Your task to perform on an android device: turn off improve location accuracy Image 0: 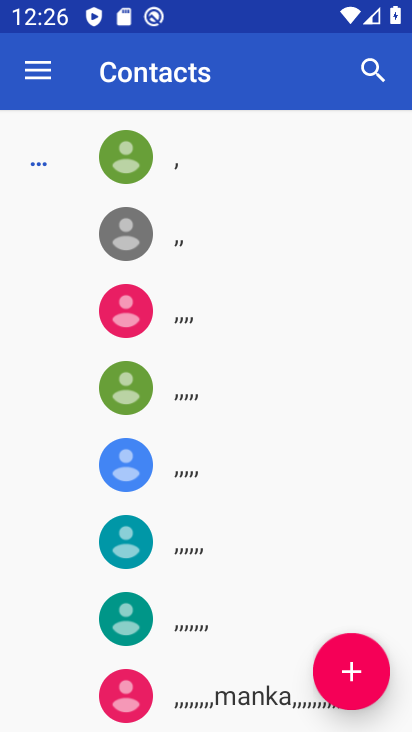
Step 0: press home button
Your task to perform on an android device: turn off improve location accuracy Image 1: 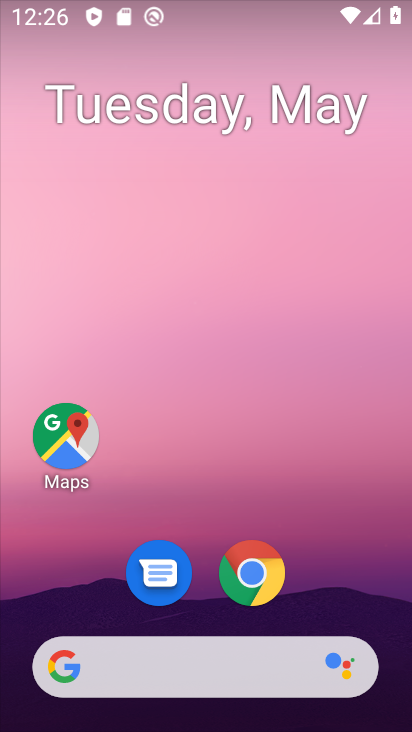
Step 1: drag from (325, 565) to (395, 152)
Your task to perform on an android device: turn off improve location accuracy Image 2: 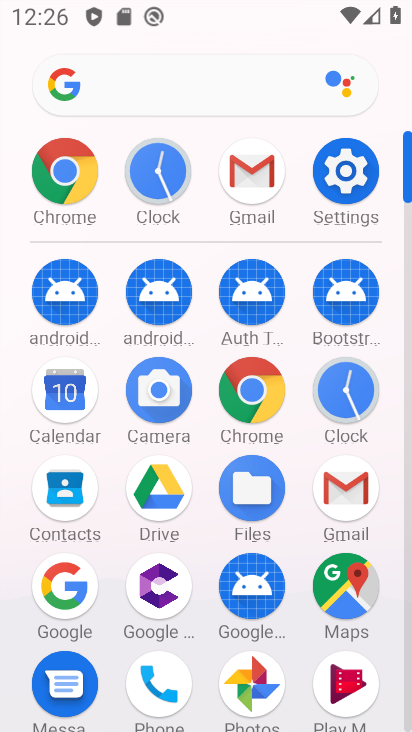
Step 2: click (351, 187)
Your task to perform on an android device: turn off improve location accuracy Image 3: 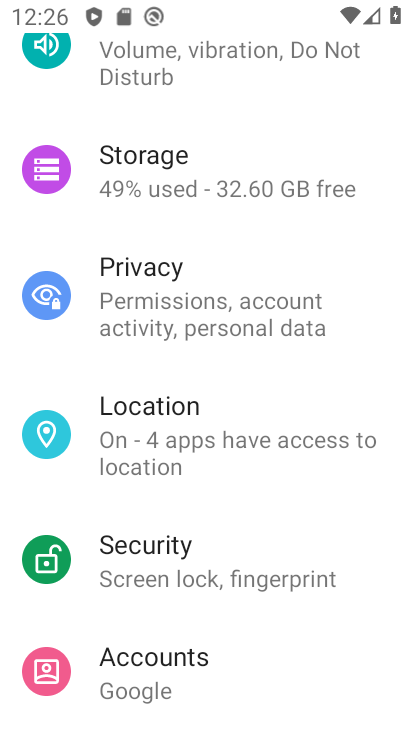
Step 3: click (172, 425)
Your task to perform on an android device: turn off improve location accuracy Image 4: 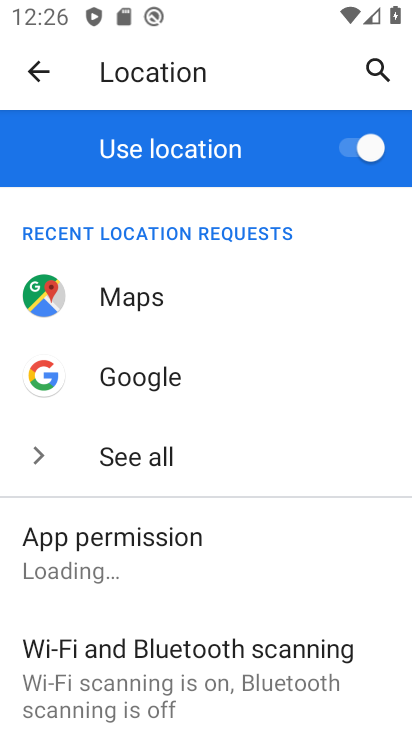
Step 4: drag from (243, 545) to (273, 236)
Your task to perform on an android device: turn off improve location accuracy Image 5: 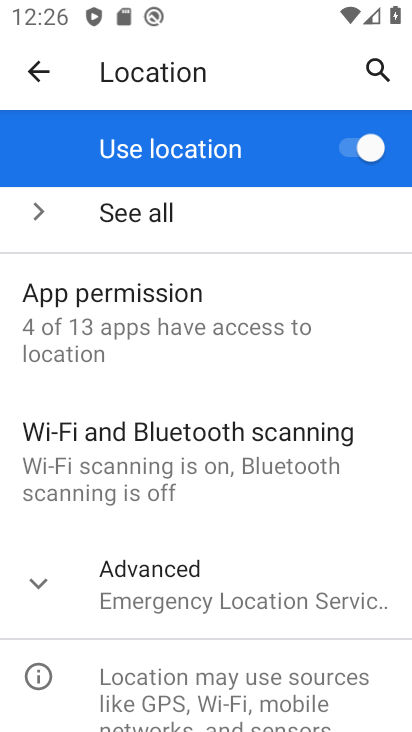
Step 5: drag from (179, 599) to (230, 325)
Your task to perform on an android device: turn off improve location accuracy Image 6: 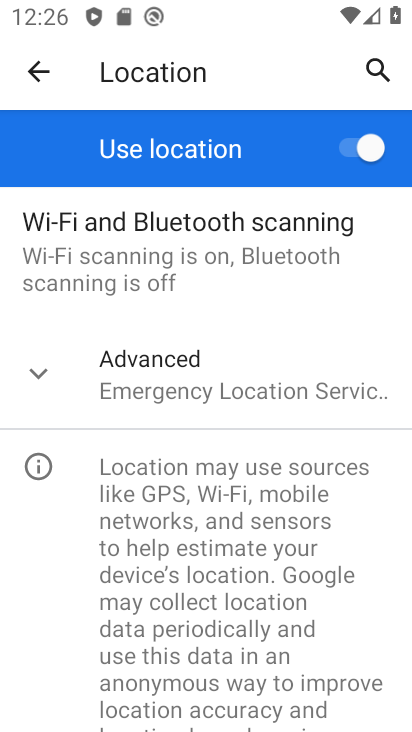
Step 6: click (188, 394)
Your task to perform on an android device: turn off improve location accuracy Image 7: 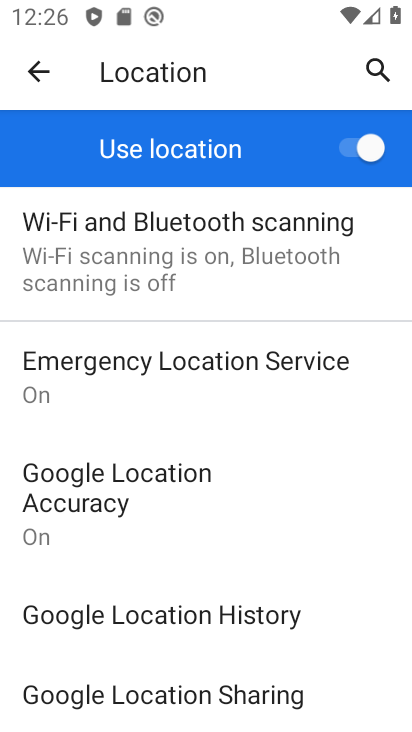
Step 7: drag from (345, 680) to (377, 396)
Your task to perform on an android device: turn off improve location accuracy Image 8: 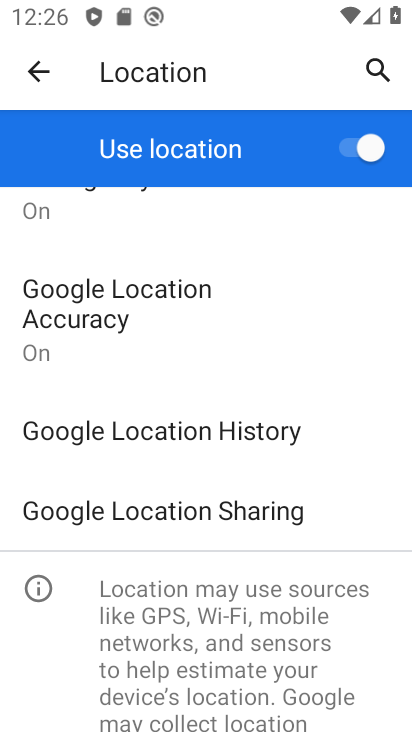
Step 8: drag from (380, 448) to (400, 682)
Your task to perform on an android device: turn off improve location accuracy Image 9: 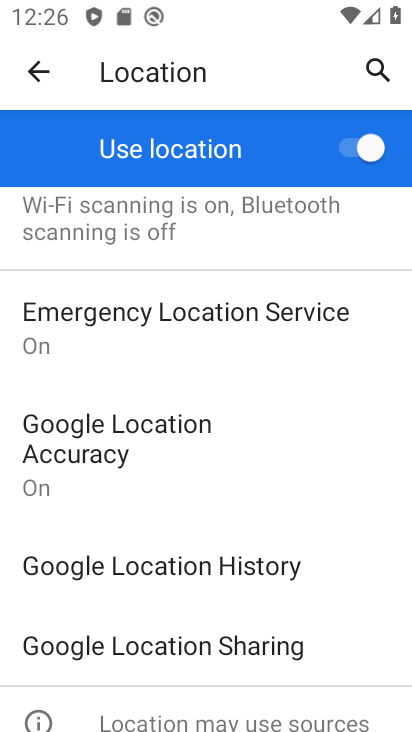
Step 9: drag from (293, 364) to (316, 571)
Your task to perform on an android device: turn off improve location accuracy Image 10: 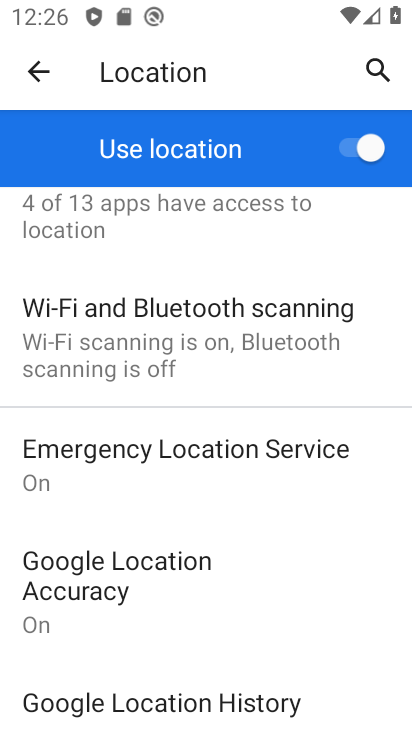
Step 10: click (147, 577)
Your task to perform on an android device: turn off improve location accuracy Image 11: 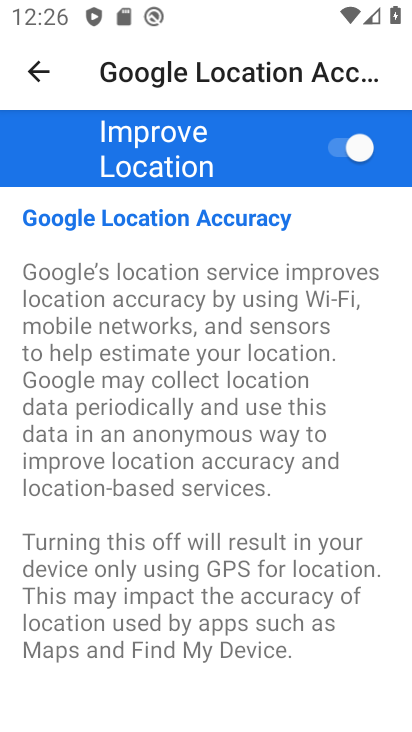
Step 11: click (354, 146)
Your task to perform on an android device: turn off improve location accuracy Image 12: 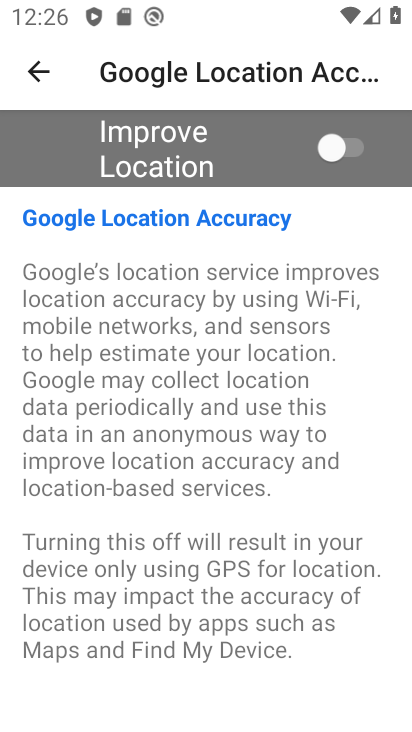
Step 12: task complete